Your task to perform on an android device: Open battery settings Image 0: 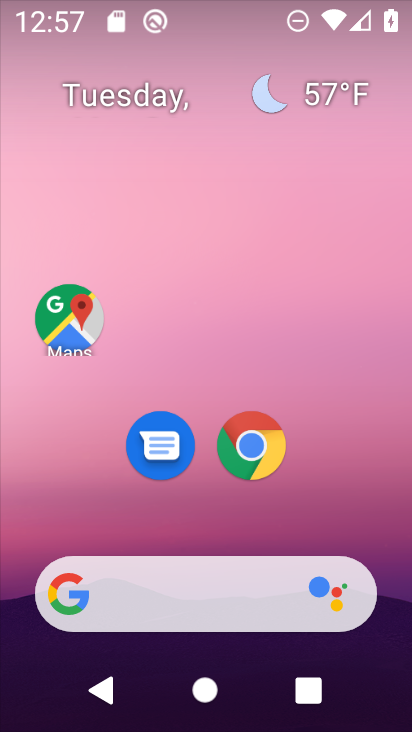
Step 0: drag from (384, 545) to (375, 267)
Your task to perform on an android device: Open battery settings Image 1: 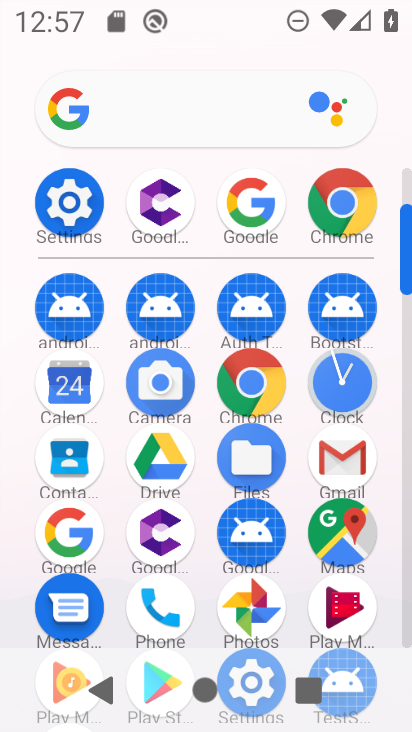
Step 1: drag from (387, 556) to (389, 456)
Your task to perform on an android device: Open battery settings Image 2: 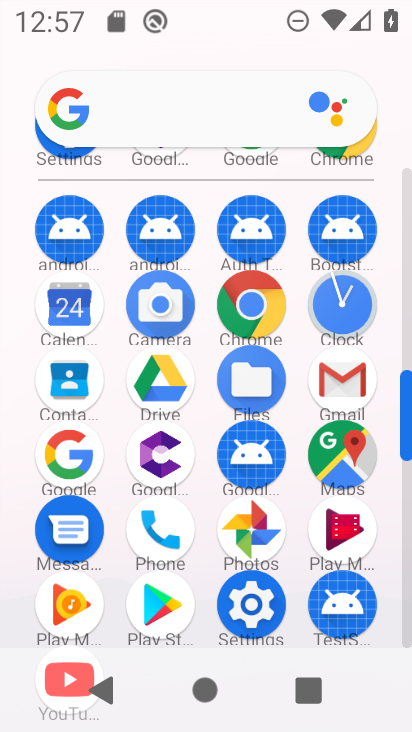
Step 2: drag from (394, 593) to (397, 467)
Your task to perform on an android device: Open battery settings Image 3: 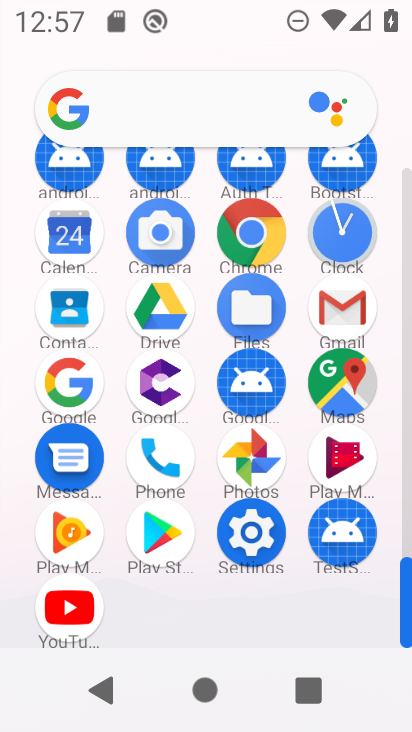
Step 3: click (244, 546)
Your task to perform on an android device: Open battery settings Image 4: 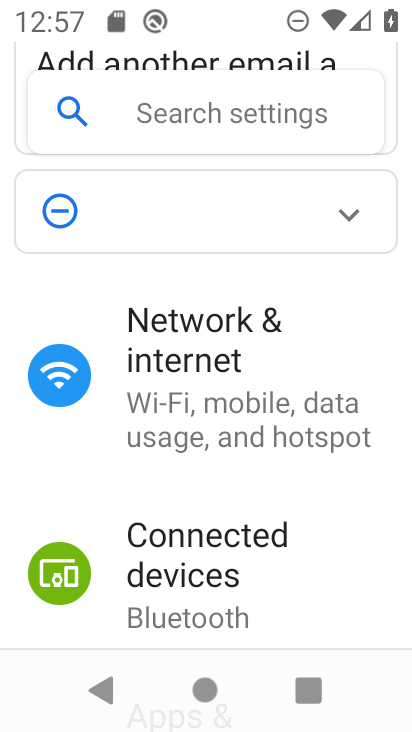
Step 4: drag from (356, 584) to (371, 479)
Your task to perform on an android device: Open battery settings Image 5: 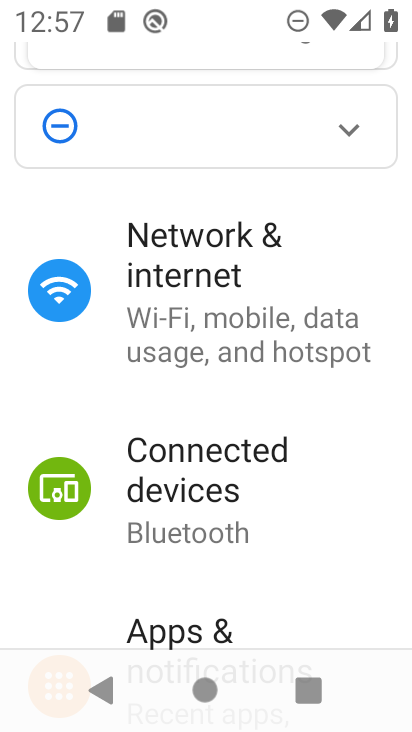
Step 5: drag from (372, 598) to (377, 491)
Your task to perform on an android device: Open battery settings Image 6: 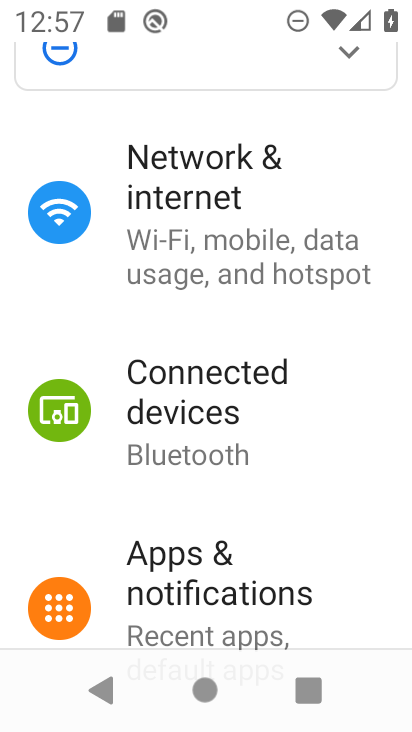
Step 6: drag from (375, 542) to (354, 446)
Your task to perform on an android device: Open battery settings Image 7: 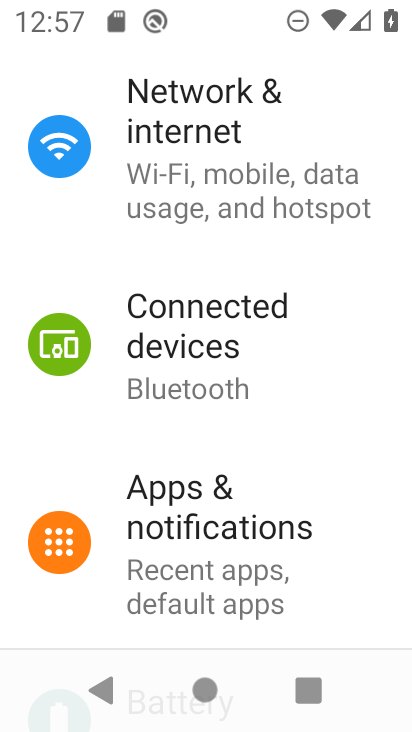
Step 7: drag from (343, 585) to (336, 537)
Your task to perform on an android device: Open battery settings Image 8: 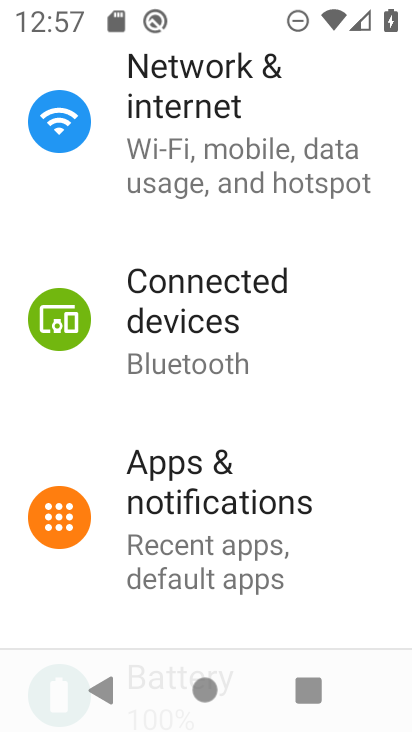
Step 8: drag from (366, 605) to (351, 430)
Your task to perform on an android device: Open battery settings Image 9: 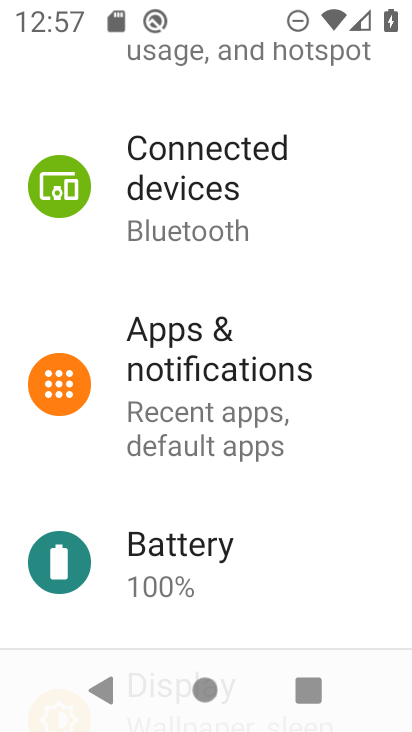
Step 9: drag from (375, 547) to (374, 407)
Your task to perform on an android device: Open battery settings Image 10: 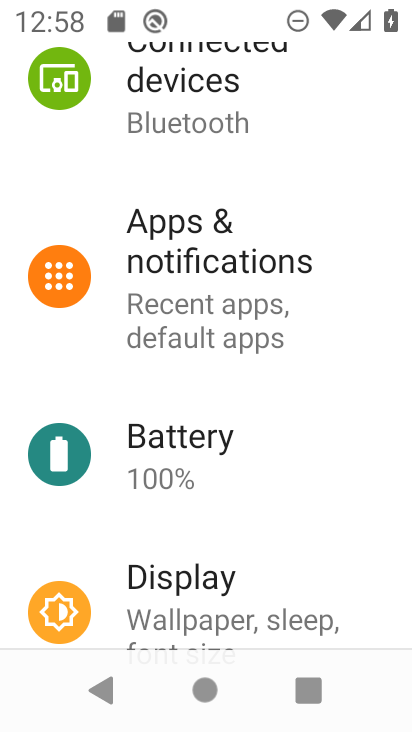
Step 10: drag from (358, 557) to (377, 435)
Your task to perform on an android device: Open battery settings Image 11: 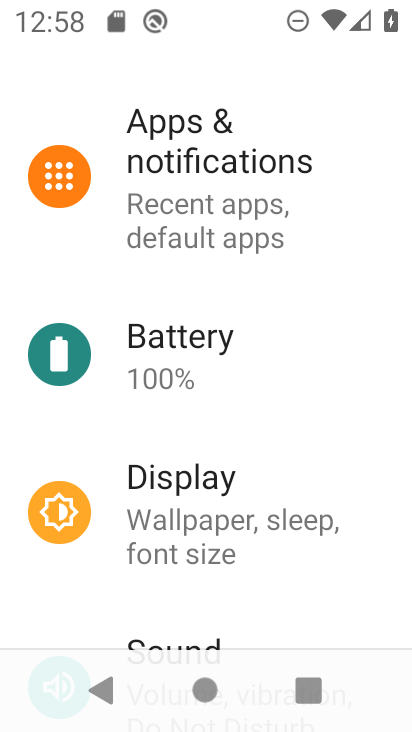
Step 11: click (227, 370)
Your task to perform on an android device: Open battery settings Image 12: 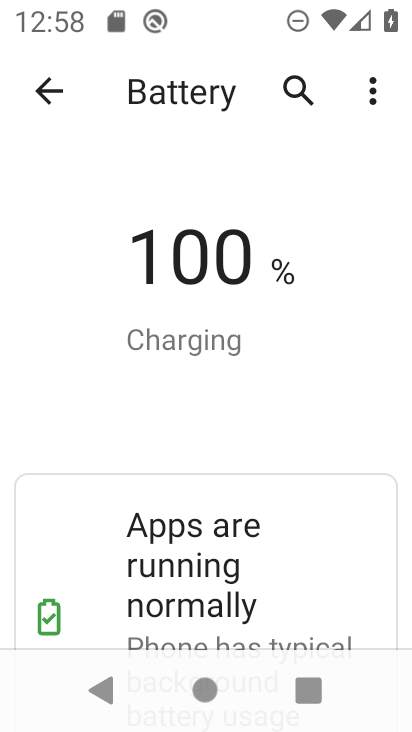
Step 12: task complete